Your task to perform on an android device: move a message to another label in the gmail app Image 0: 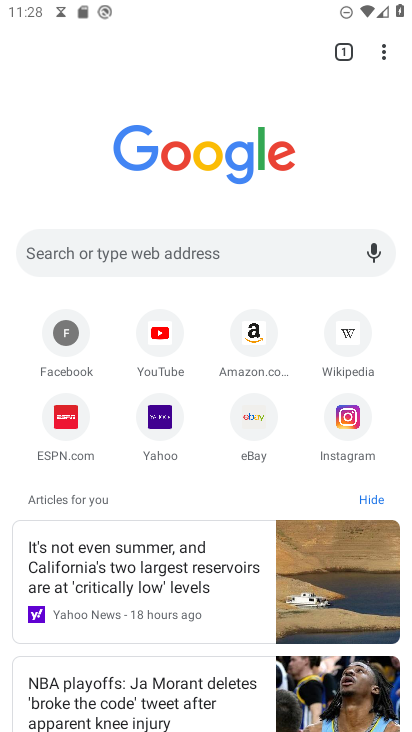
Step 0: press home button
Your task to perform on an android device: move a message to another label in the gmail app Image 1: 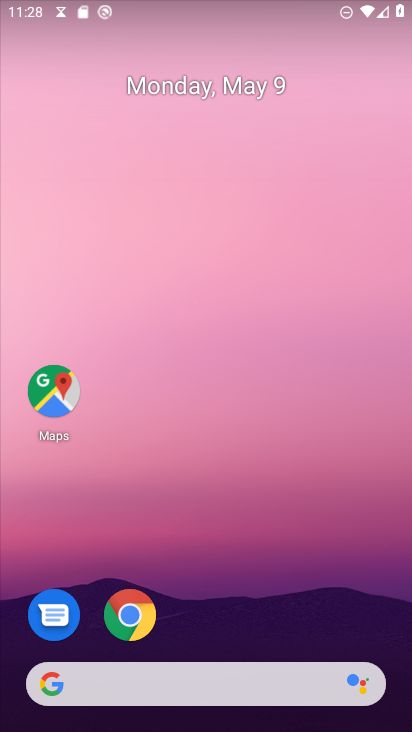
Step 1: drag from (194, 728) to (194, 169)
Your task to perform on an android device: move a message to another label in the gmail app Image 2: 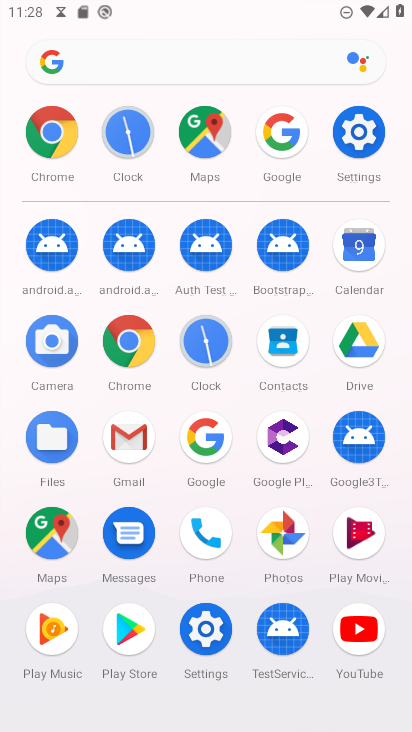
Step 2: click (135, 439)
Your task to perform on an android device: move a message to another label in the gmail app Image 3: 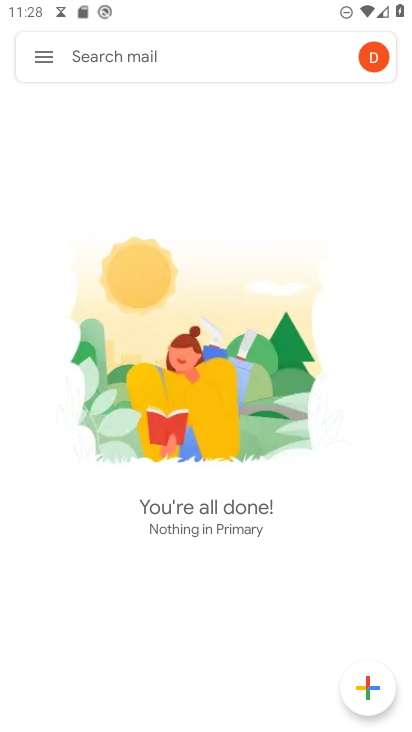
Step 3: click (36, 59)
Your task to perform on an android device: move a message to another label in the gmail app Image 4: 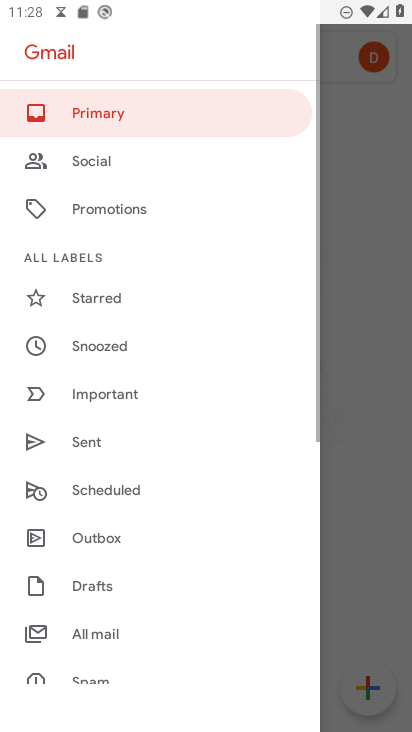
Step 4: drag from (128, 128) to (111, 426)
Your task to perform on an android device: move a message to another label in the gmail app Image 5: 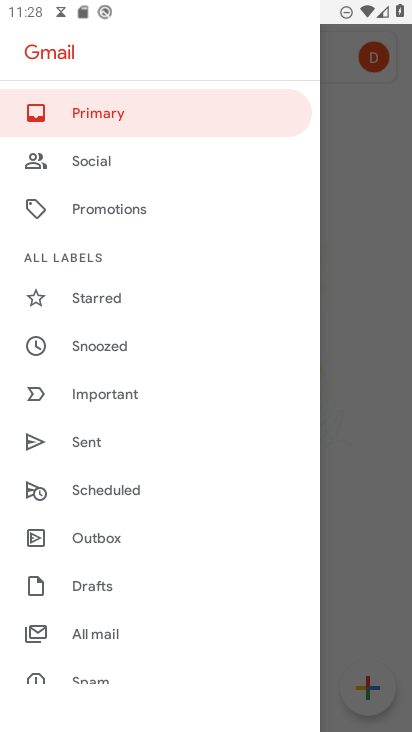
Step 5: click (364, 253)
Your task to perform on an android device: move a message to another label in the gmail app Image 6: 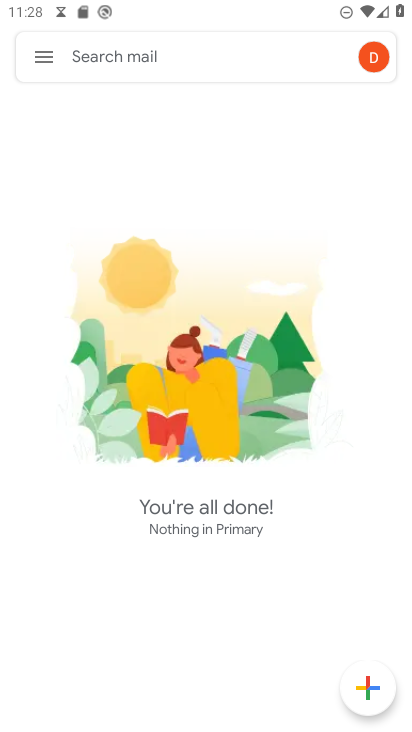
Step 6: task complete